Your task to perform on an android device: Open calendar and show me the second week of next month Image 0: 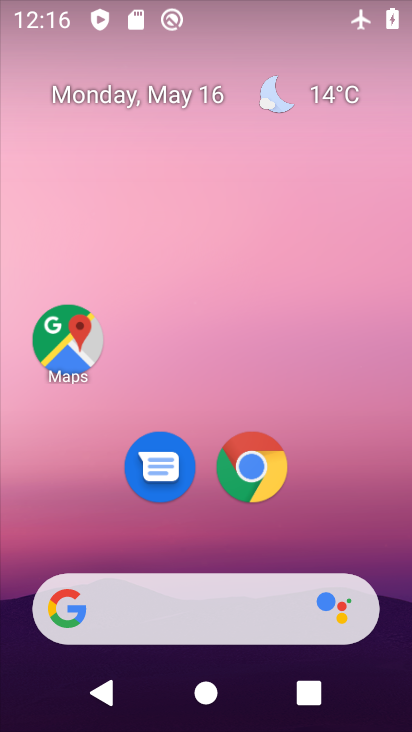
Step 0: drag from (295, 522) to (284, 243)
Your task to perform on an android device: Open calendar and show me the second week of next month Image 1: 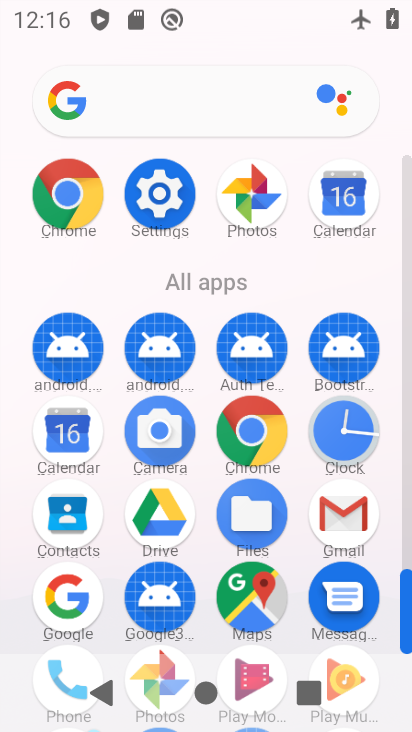
Step 1: click (54, 419)
Your task to perform on an android device: Open calendar and show me the second week of next month Image 2: 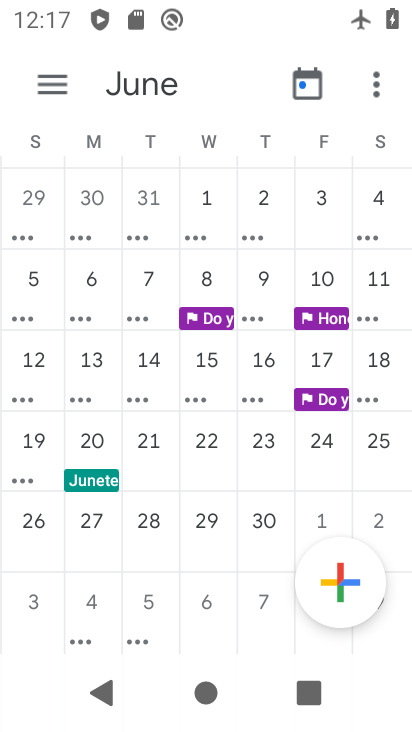
Step 2: task complete